Your task to perform on an android device: find snoozed emails in the gmail app Image 0: 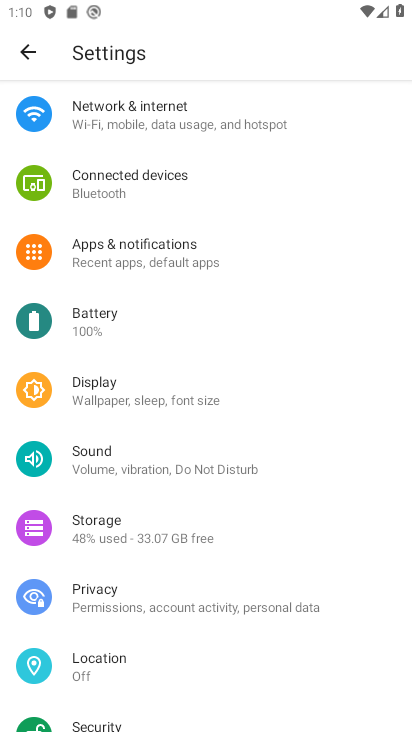
Step 0: press back button
Your task to perform on an android device: find snoozed emails in the gmail app Image 1: 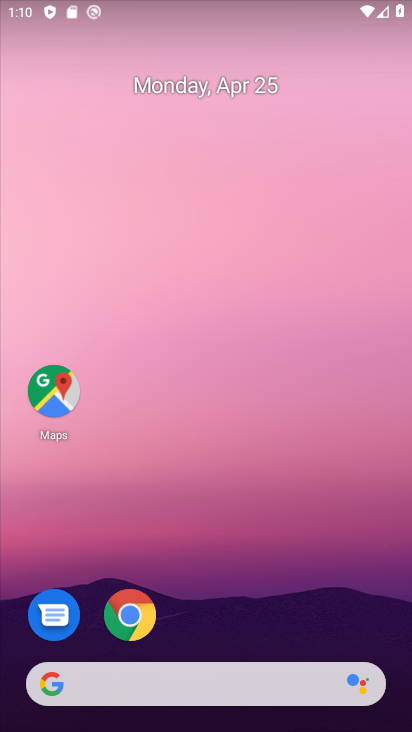
Step 1: drag from (230, 588) to (237, 5)
Your task to perform on an android device: find snoozed emails in the gmail app Image 2: 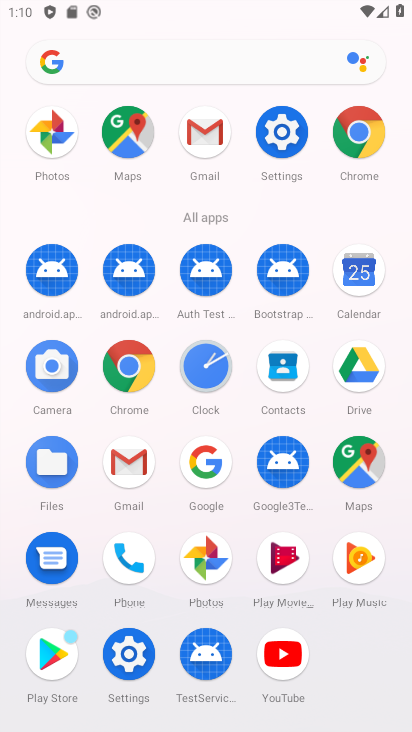
Step 2: click (205, 135)
Your task to perform on an android device: find snoozed emails in the gmail app Image 3: 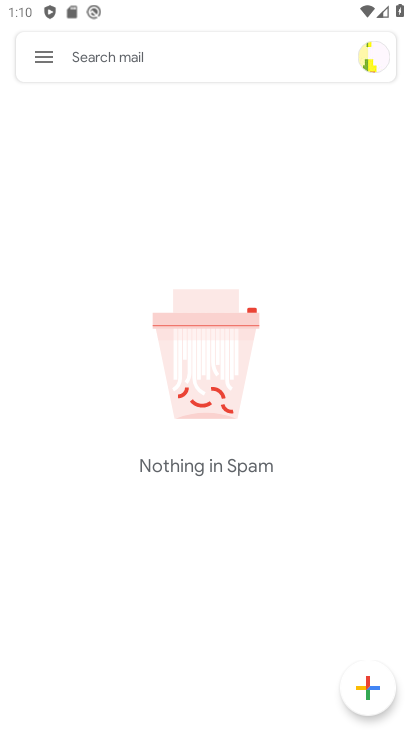
Step 3: click (47, 61)
Your task to perform on an android device: find snoozed emails in the gmail app Image 4: 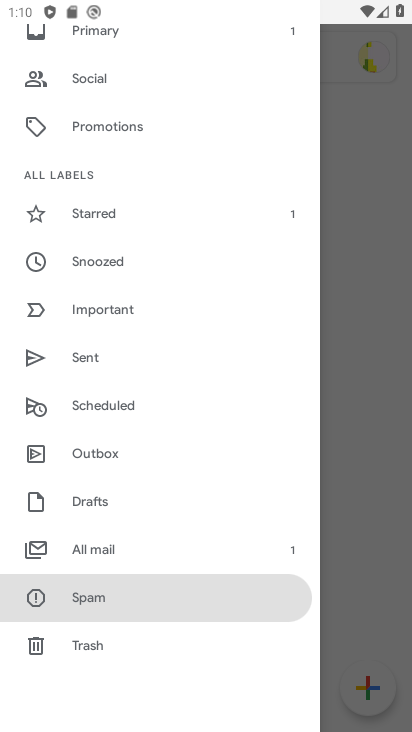
Step 4: click (117, 262)
Your task to perform on an android device: find snoozed emails in the gmail app Image 5: 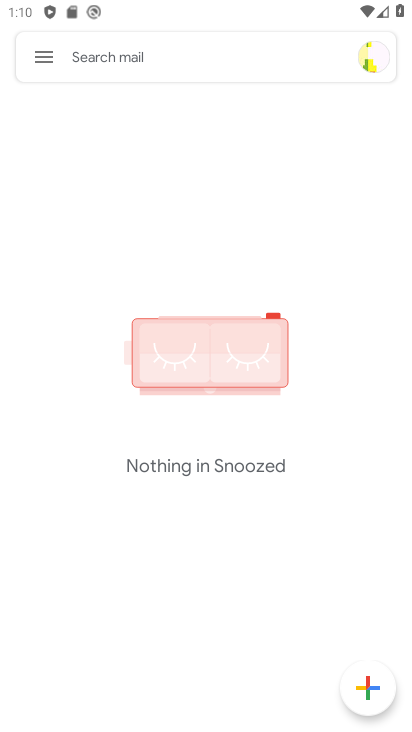
Step 5: click (41, 59)
Your task to perform on an android device: find snoozed emails in the gmail app Image 6: 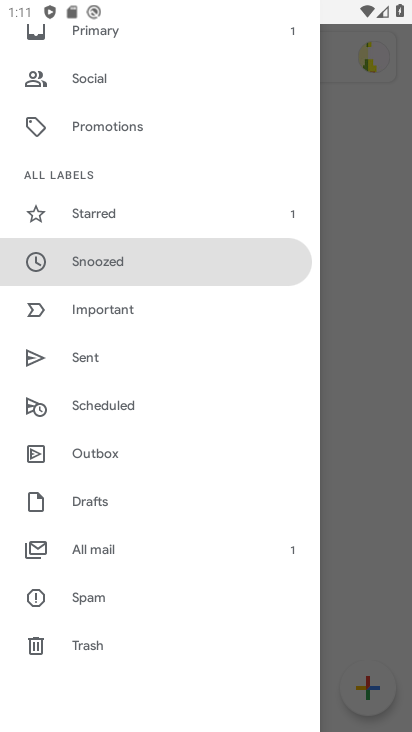
Step 6: click (111, 544)
Your task to perform on an android device: find snoozed emails in the gmail app Image 7: 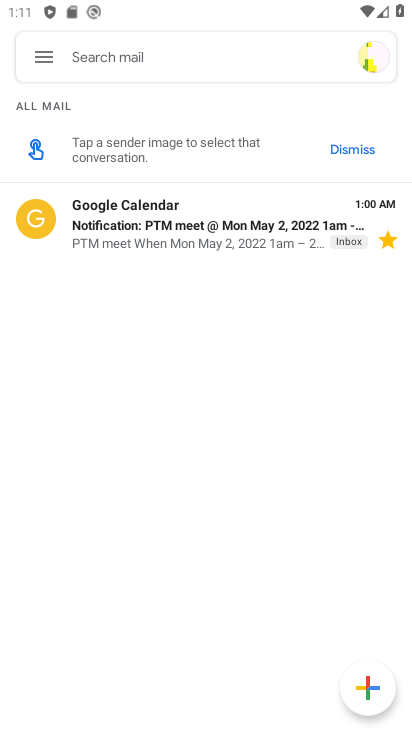
Step 7: click (283, 226)
Your task to perform on an android device: find snoozed emails in the gmail app Image 8: 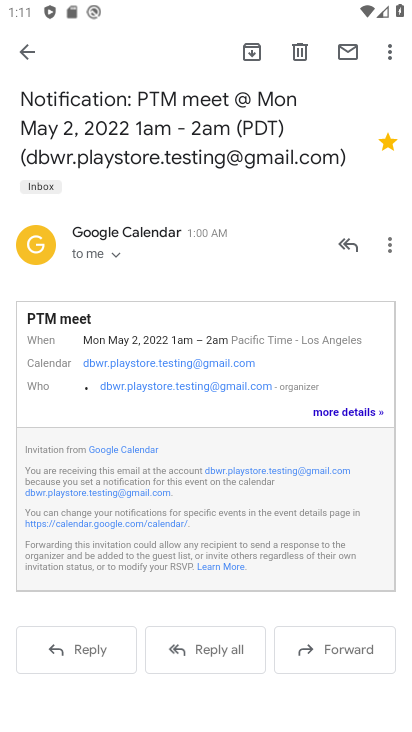
Step 8: click (34, 52)
Your task to perform on an android device: find snoozed emails in the gmail app Image 9: 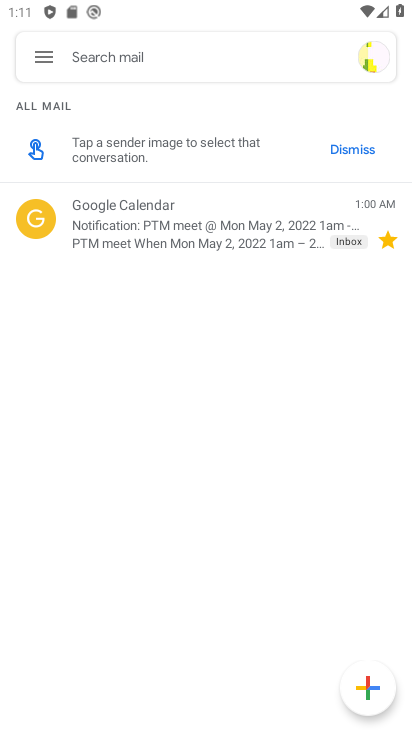
Step 9: click (42, 49)
Your task to perform on an android device: find snoozed emails in the gmail app Image 10: 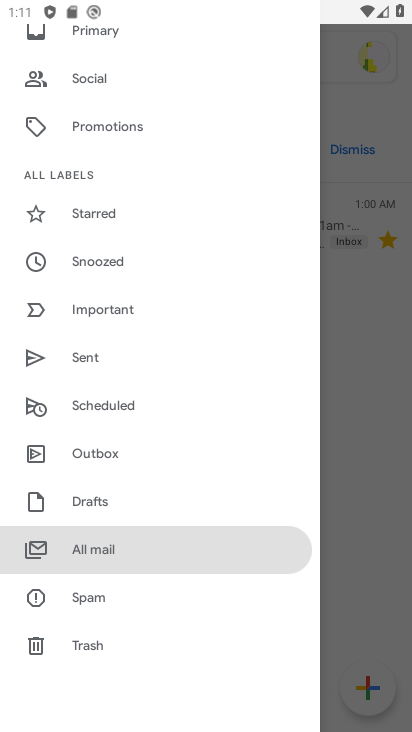
Step 10: task complete